Your task to perform on an android device: check data usage Image 0: 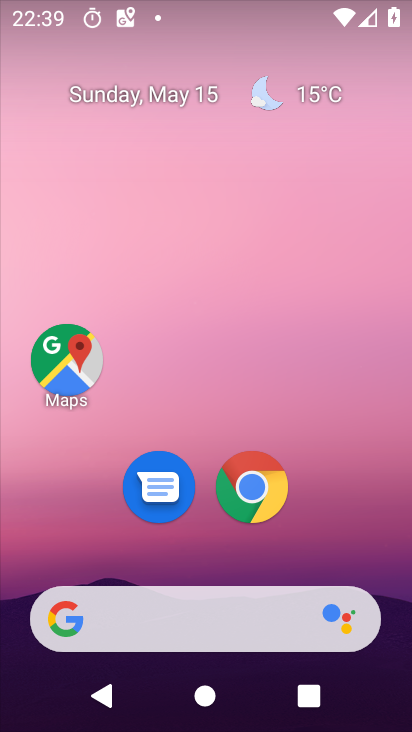
Step 0: drag from (377, 571) to (408, 400)
Your task to perform on an android device: check data usage Image 1: 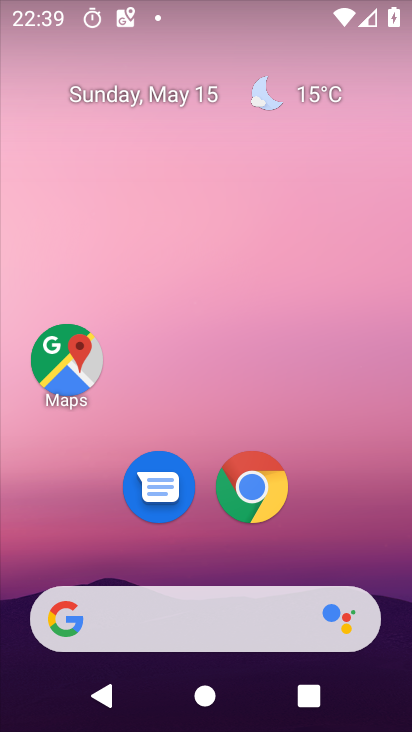
Step 1: drag from (365, 520) to (406, 424)
Your task to perform on an android device: check data usage Image 2: 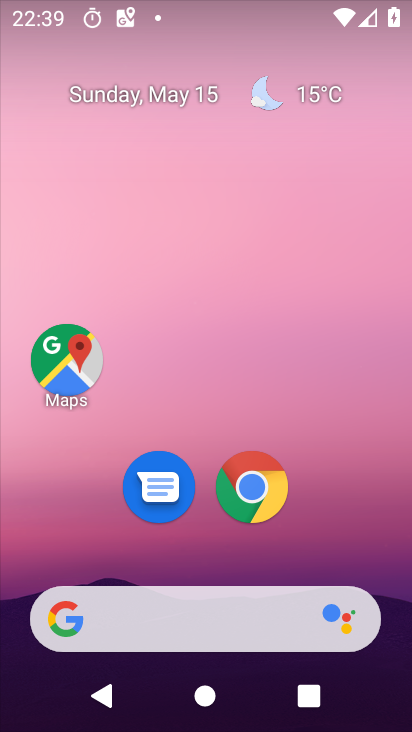
Step 2: drag from (321, 565) to (359, 13)
Your task to perform on an android device: check data usage Image 3: 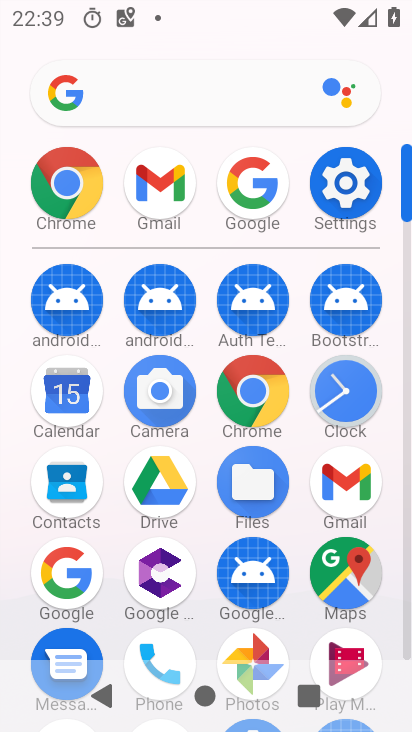
Step 3: click (324, 183)
Your task to perform on an android device: check data usage Image 4: 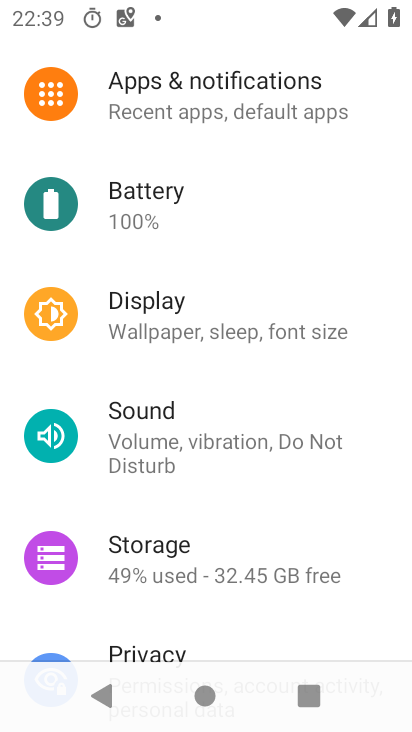
Step 4: drag from (323, 173) to (274, 490)
Your task to perform on an android device: check data usage Image 5: 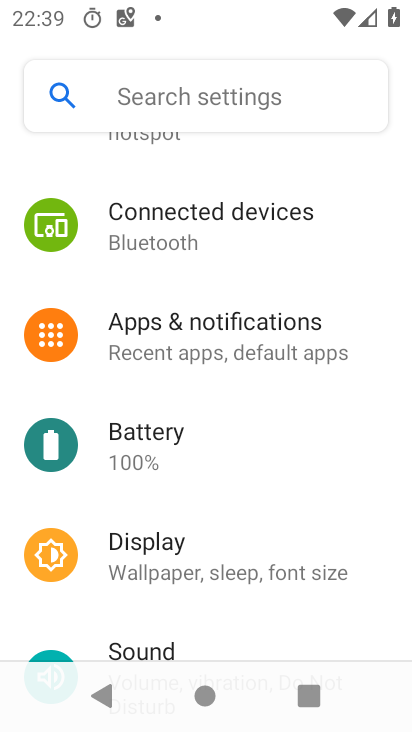
Step 5: drag from (305, 173) to (260, 482)
Your task to perform on an android device: check data usage Image 6: 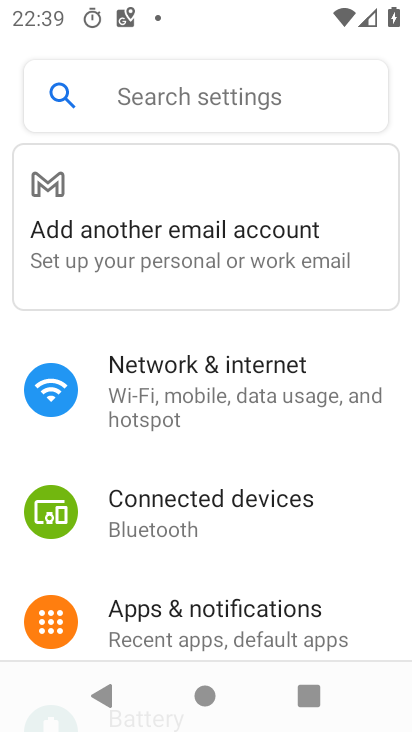
Step 6: click (215, 364)
Your task to perform on an android device: check data usage Image 7: 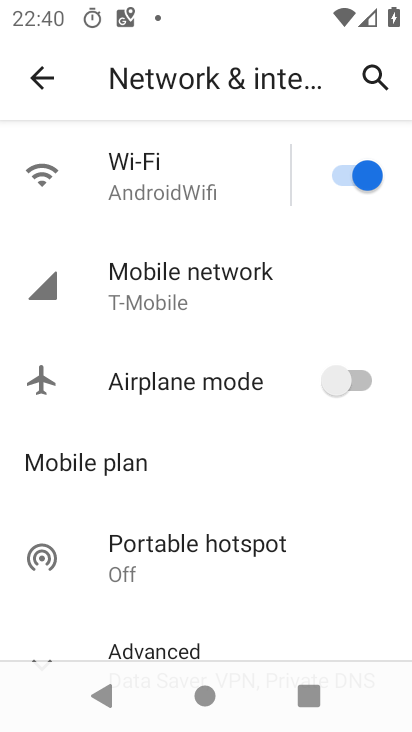
Step 7: click (202, 271)
Your task to perform on an android device: check data usage Image 8: 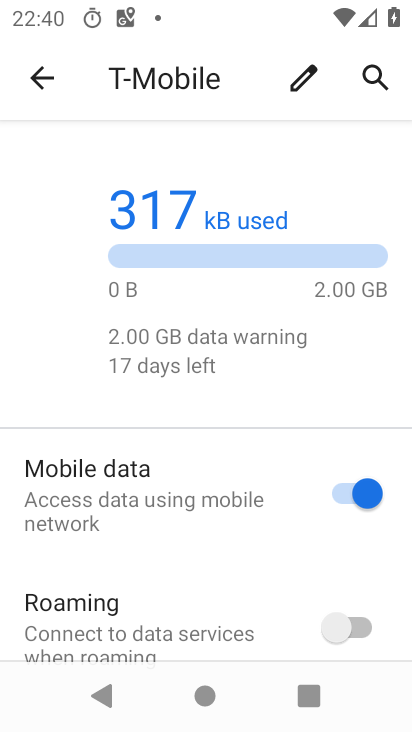
Step 8: task complete